Your task to perform on an android device: Open ESPN.com Image 0: 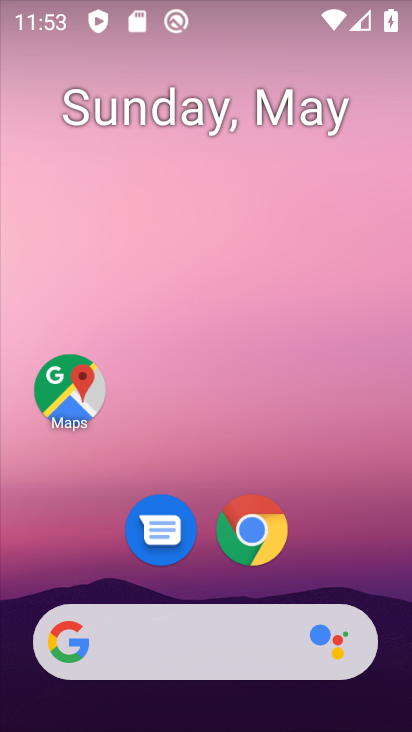
Step 0: click (251, 524)
Your task to perform on an android device: Open ESPN.com Image 1: 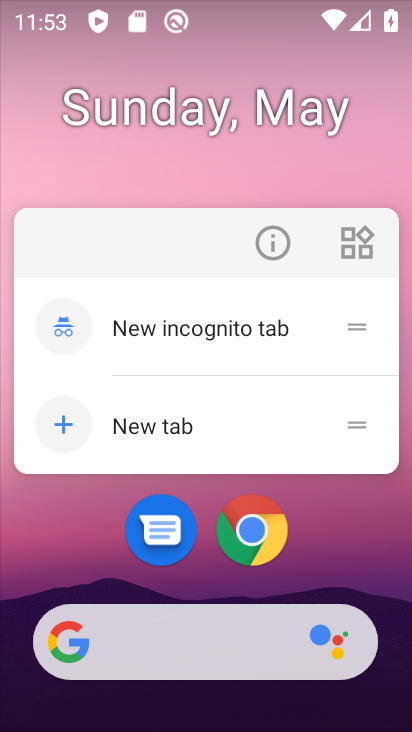
Step 1: click (244, 525)
Your task to perform on an android device: Open ESPN.com Image 2: 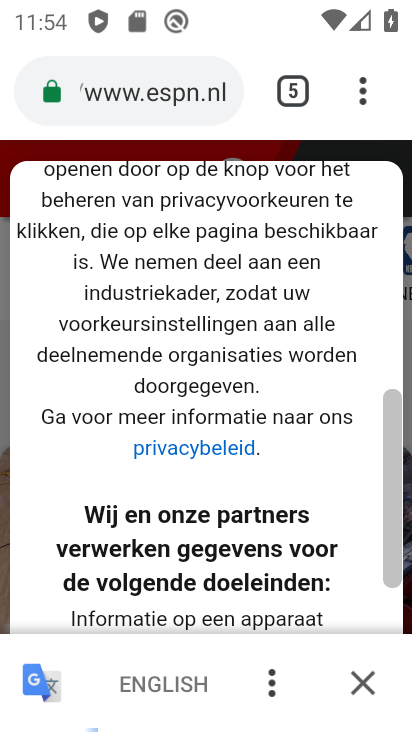
Step 2: task complete